Your task to perform on an android device: check storage Image 0: 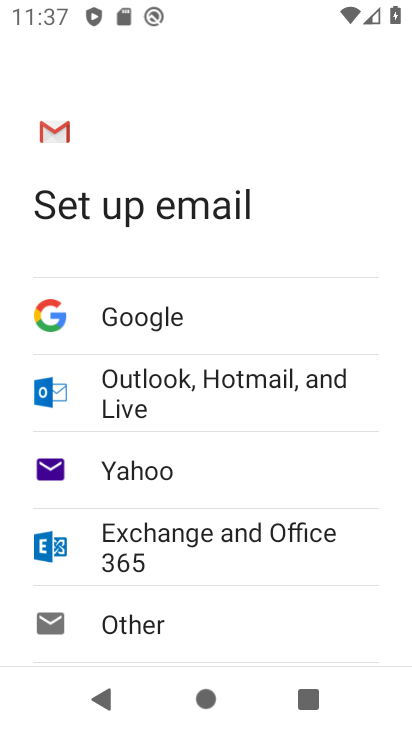
Step 0: press home button
Your task to perform on an android device: check storage Image 1: 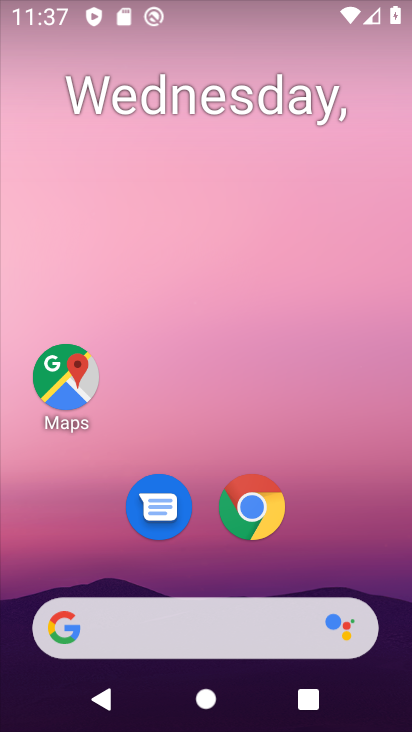
Step 1: drag from (242, 606) to (301, 188)
Your task to perform on an android device: check storage Image 2: 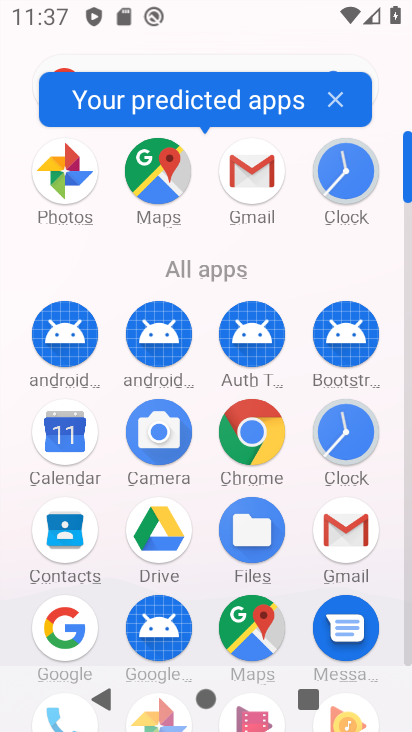
Step 2: drag from (231, 457) to (288, 153)
Your task to perform on an android device: check storage Image 3: 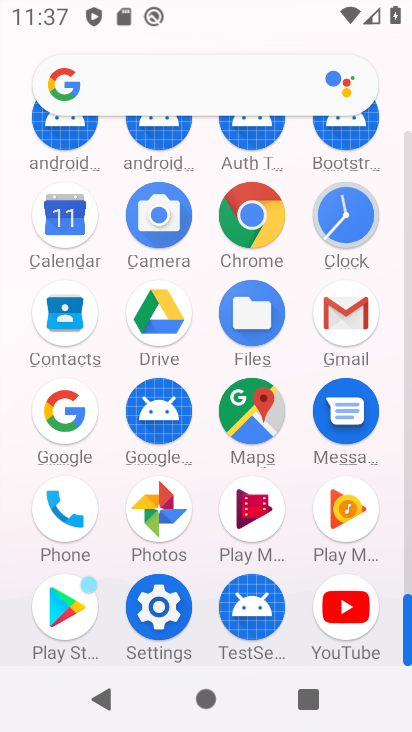
Step 3: click (169, 613)
Your task to perform on an android device: check storage Image 4: 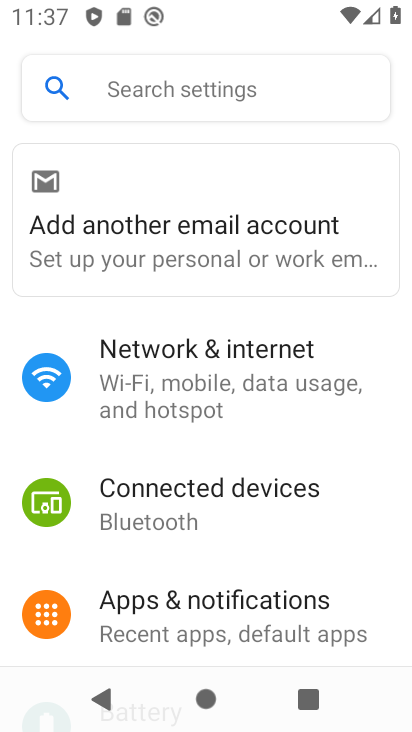
Step 4: drag from (198, 506) to (220, 229)
Your task to perform on an android device: check storage Image 5: 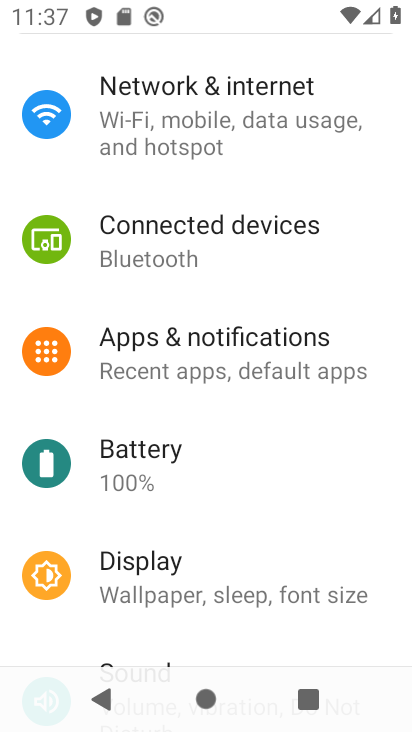
Step 5: drag from (260, 482) to (331, 250)
Your task to perform on an android device: check storage Image 6: 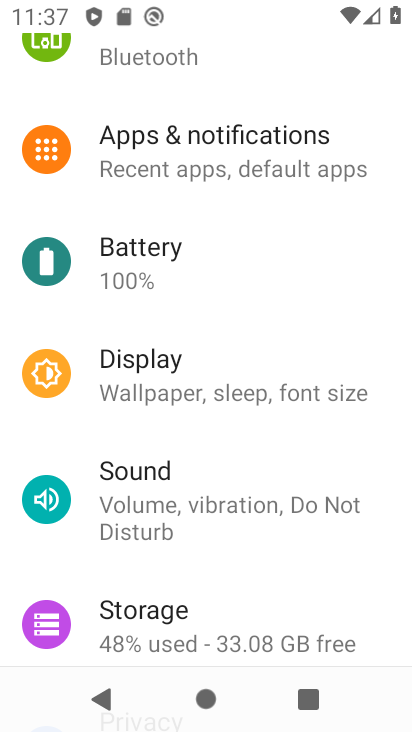
Step 6: click (215, 625)
Your task to perform on an android device: check storage Image 7: 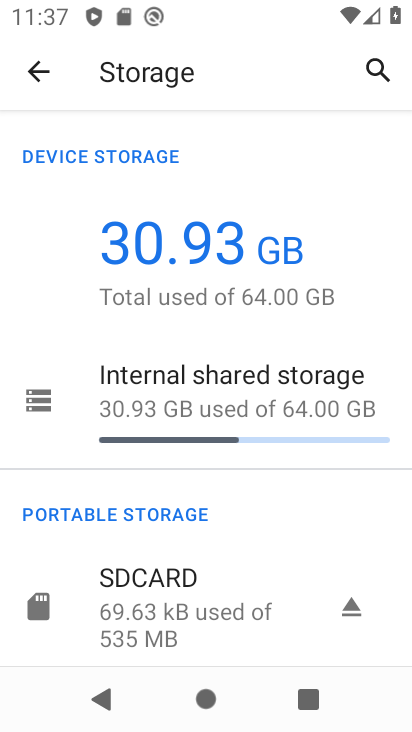
Step 7: click (261, 393)
Your task to perform on an android device: check storage Image 8: 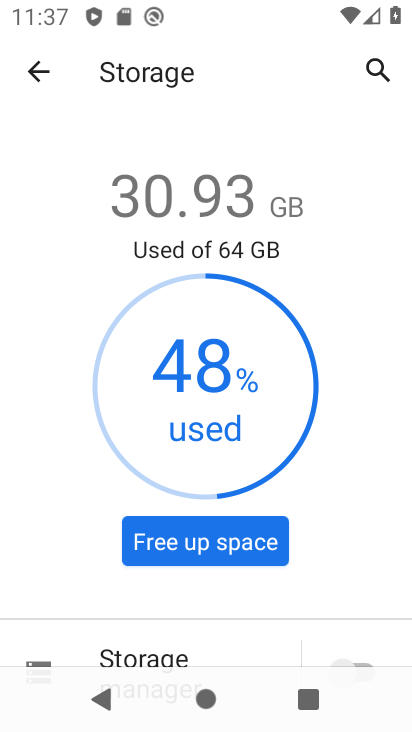
Step 8: task complete